Your task to perform on an android device: Open calendar and show me the third week of next month Image 0: 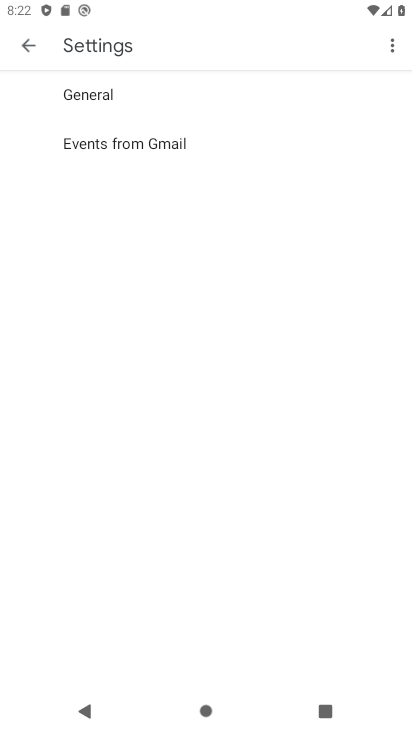
Step 0: press home button
Your task to perform on an android device: Open calendar and show me the third week of next month Image 1: 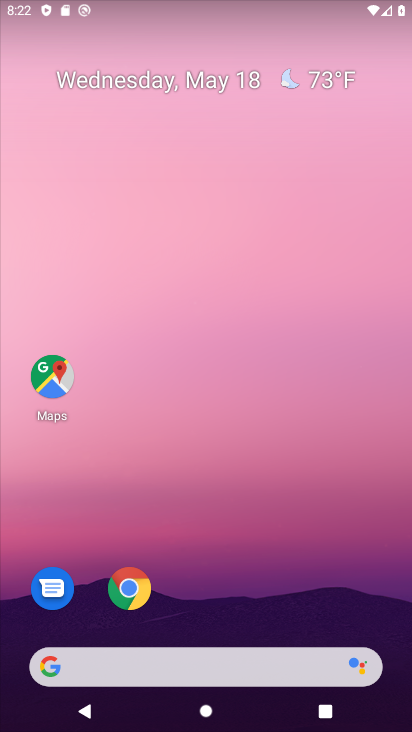
Step 1: drag from (353, 580) to (327, 176)
Your task to perform on an android device: Open calendar and show me the third week of next month Image 2: 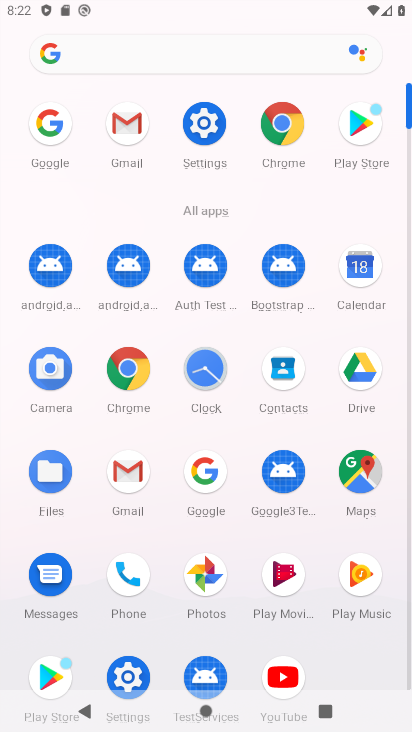
Step 2: click (374, 269)
Your task to perform on an android device: Open calendar and show me the third week of next month Image 3: 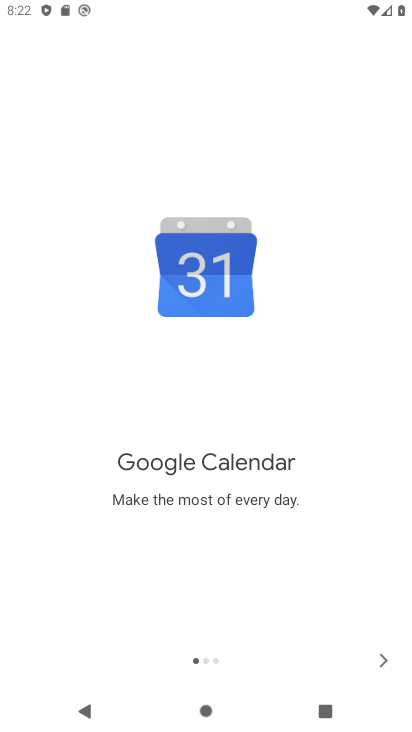
Step 3: click (375, 647)
Your task to perform on an android device: Open calendar and show me the third week of next month Image 4: 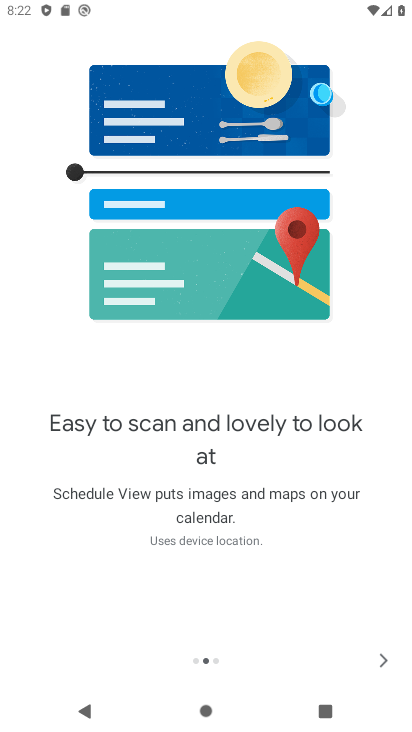
Step 4: click (378, 648)
Your task to perform on an android device: Open calendar and show me the third week of next month Image 5: 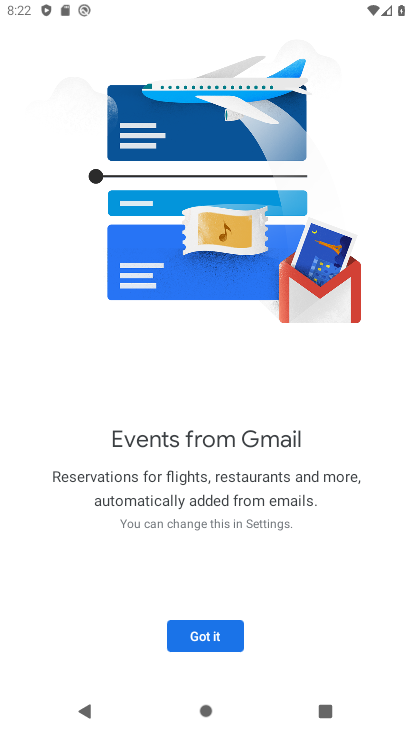
Step 5: click (199, 637)
Your task to perform on an android device: Open calendar and show me the third week of next month Image 6: 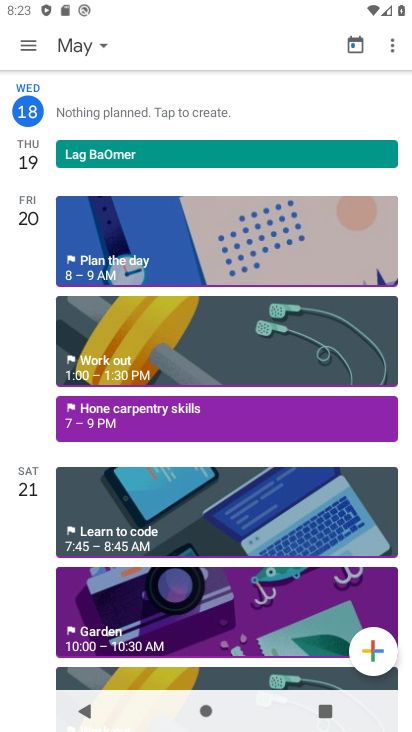
Step 6: click (83, 47)
Your task to perform on an android device: Open calendar and show me the third week of next month Image 7: 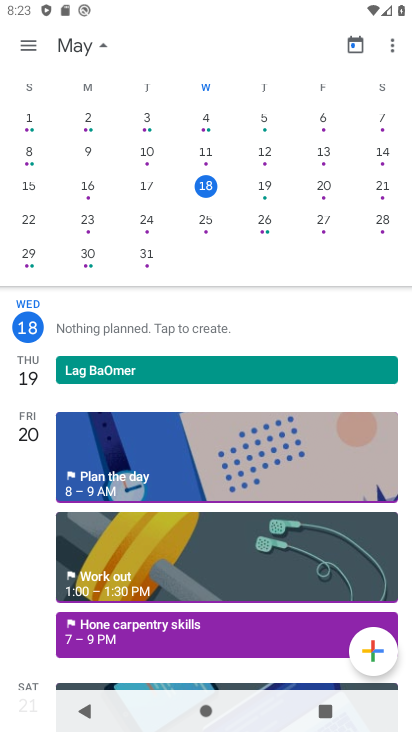
Step 7: drag from (351, 199) to (0, 208)
Your task to perform on an android device: Open calendar and show me the third week of next month Image 8: 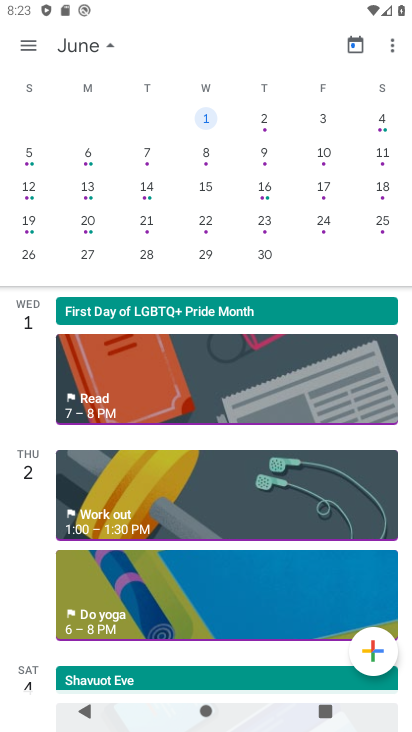
Step 8: click (22, 189)
Your task to perform on an android device: Open calendar and show me the third week of next month Image 9: 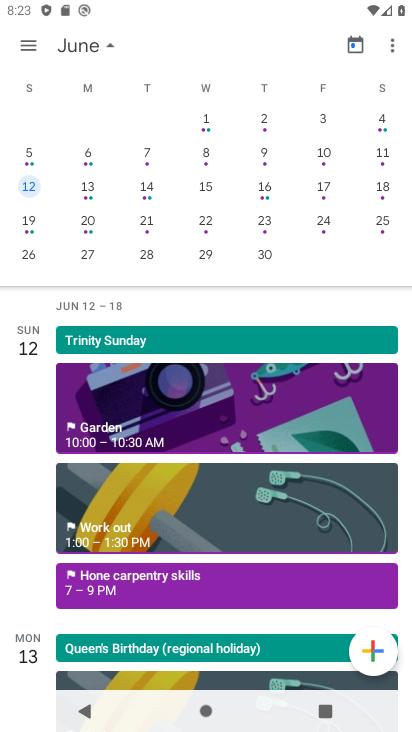
Step 9: task complete